Your task to perform on an android device: Open privacy settings Image 0: 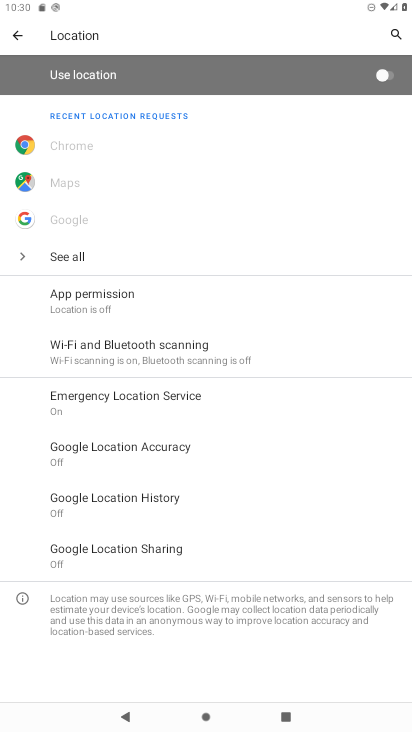
Step 0: press home button
Your task to perform on an android device: Open privacy settings Image 1: 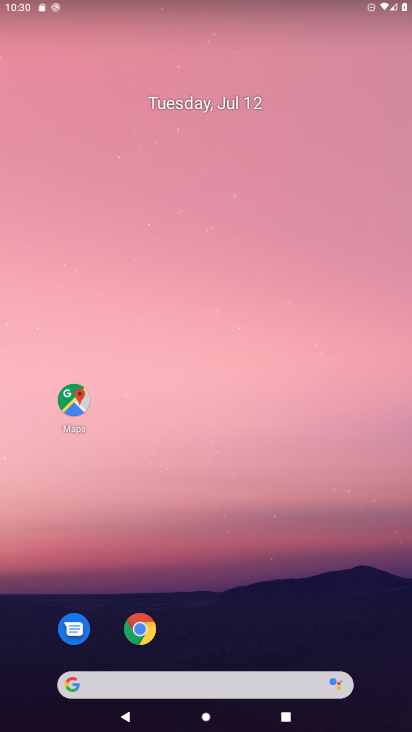
Step 1: drag from (254, 659) to (246, 139)
Your task to perform on an android device: Open privacy settings Image 2: 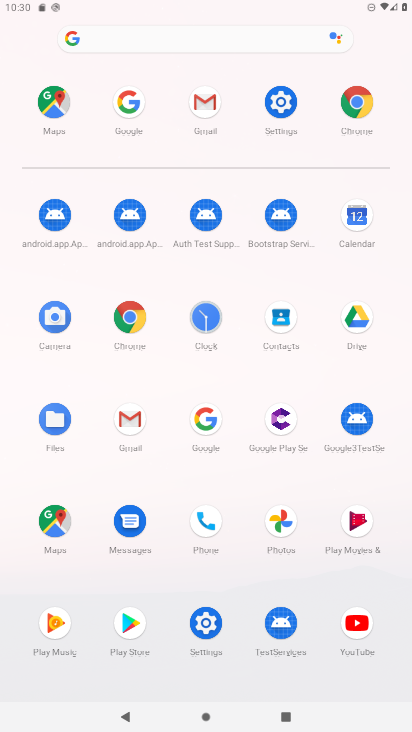
Step 2: click (271, 109)
Your task to perform on an android device: Open privacy settings Image 3: 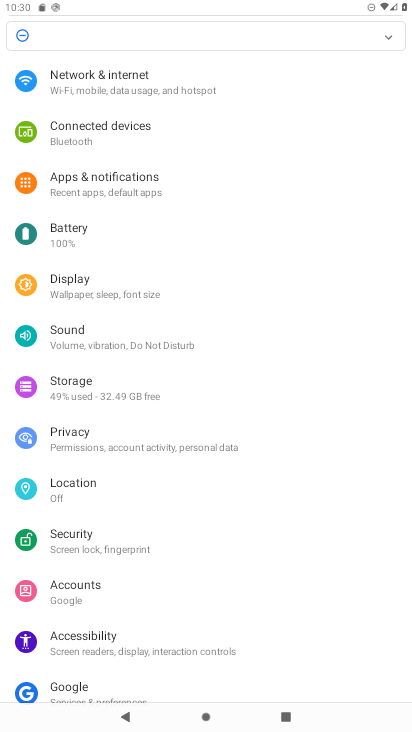
Step 3: click (98, 442)
Your task to perform on an android device: Open privacy settings Image 4: 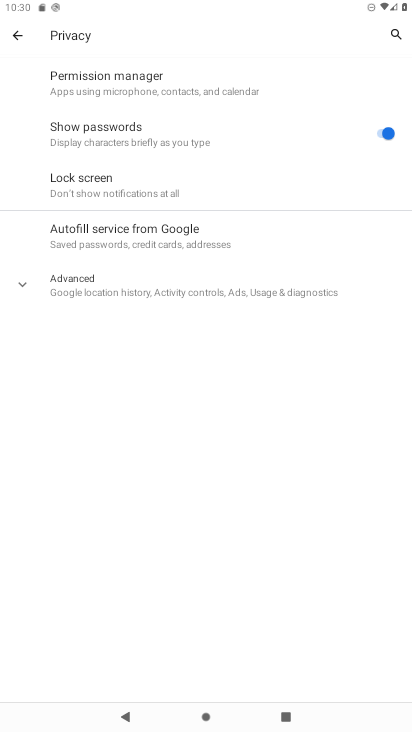
Step 4: task complete